Your task to perform on an android device: Show me popular games on the Play Store Image 0: 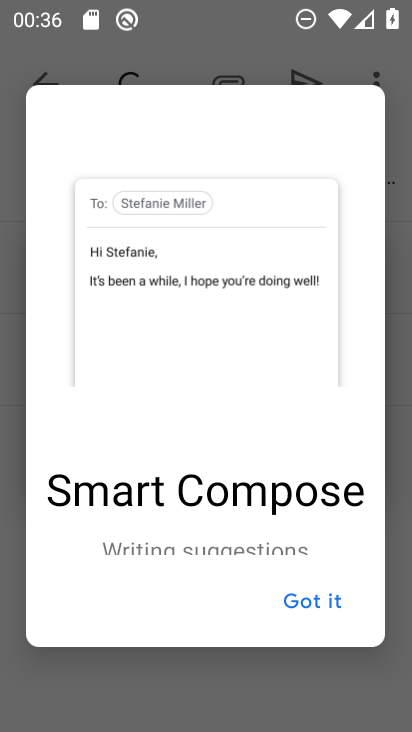
Step 0: click (320, 590)
Your task to perform on an android device: Show me popular games on the Play Store Image 1: 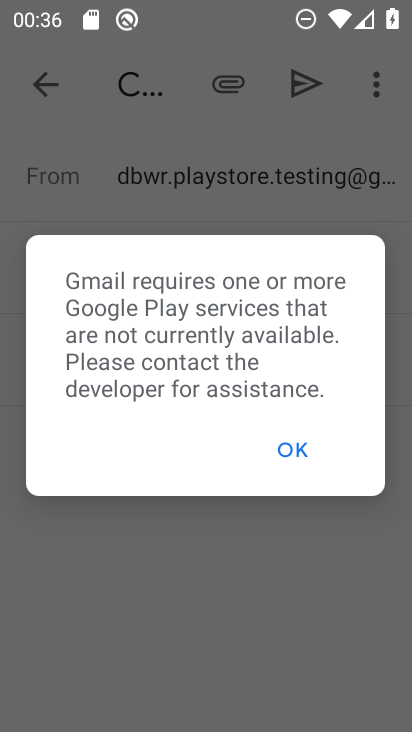
Step 1: click (299, 422)
Your task to perform on an android device: Show me popular games on the Play Store Image 2: 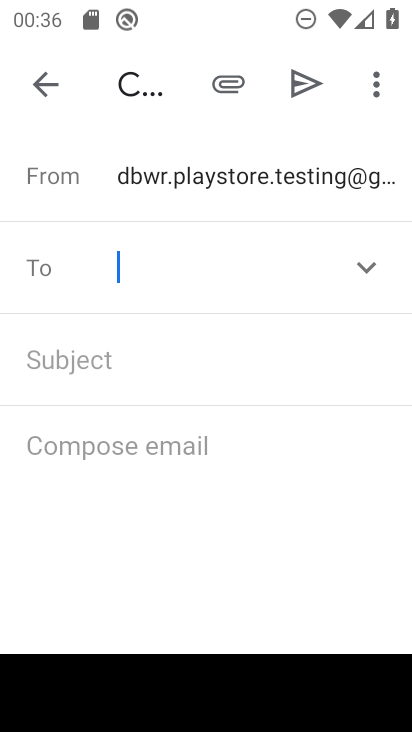
Step 2: press home button
Your task to perform on an android device: Show me popular games on the Play Store Image 3: 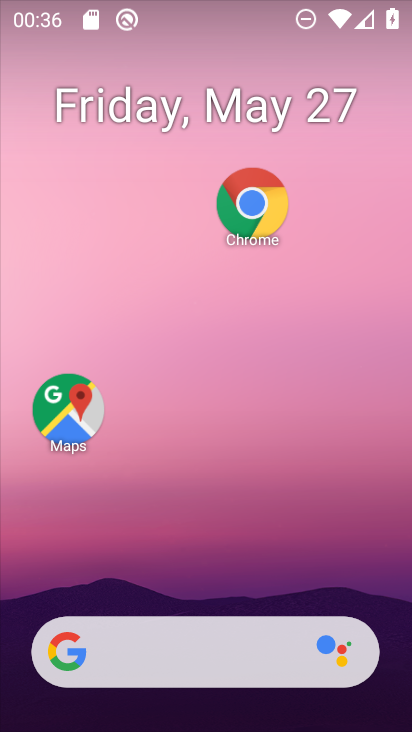
Step 3: drag from (277, 508) to (207, 82)
Your task to perform on an android device: Show me popular games on the Play Store Image 4: 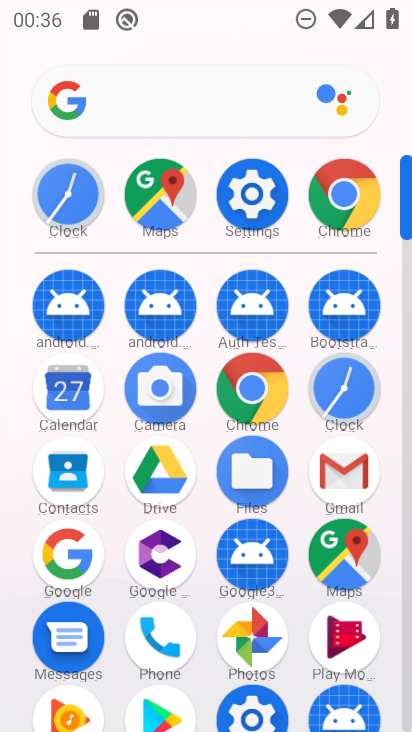
Step 4: click (149, 699)
Your task to perform on an android device: Show me popular games on the Play Store Image 5: 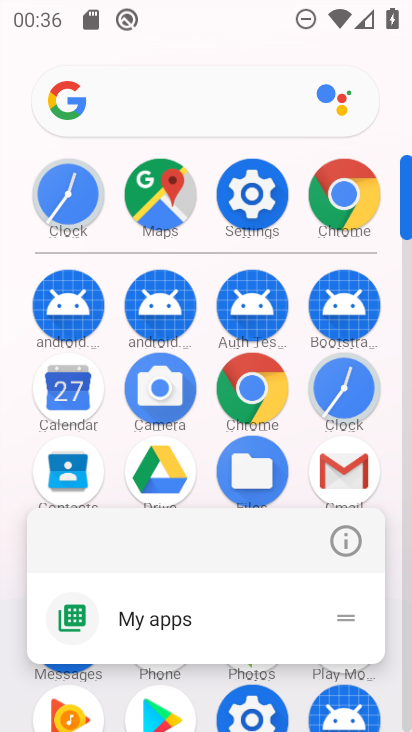
Step 5: click (344, 532)
Your task to perform on an android device: Show me popular games on the Play Store Image 6: 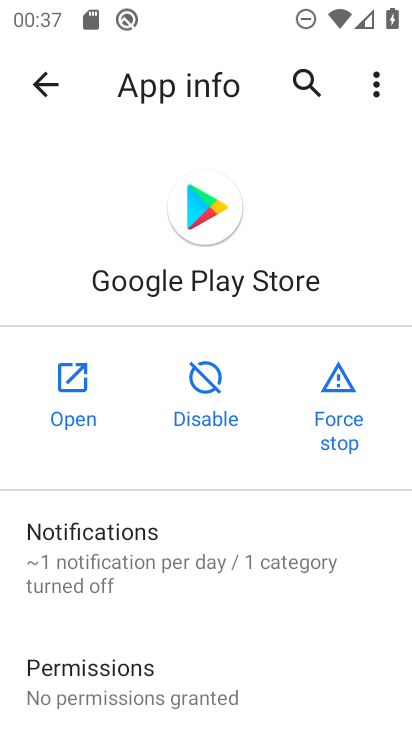
Step 6: click (64, 395)
Your task to perform on an android device: Show me popular games on the Play Store Image 7: 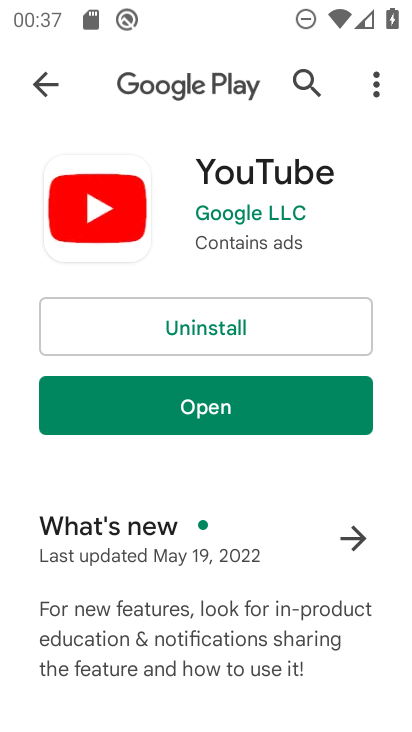
Step 7: press back button
Your task to perform on an android device: Show me popular games on the Play Store Image 8: 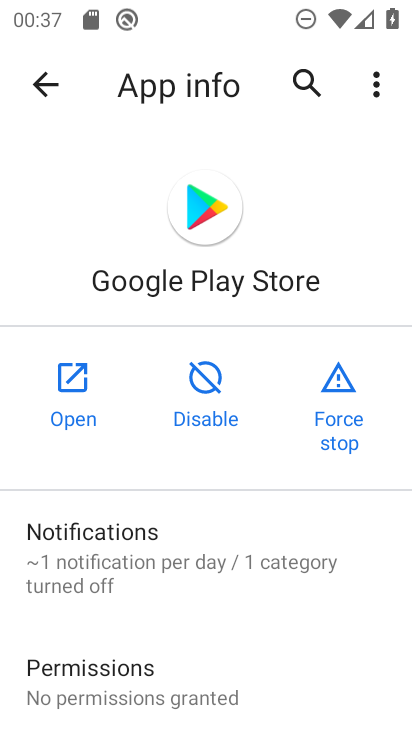
Step 8: press back button
Your task to perform on an android device: Show me popular games on the Play Store Image 9: 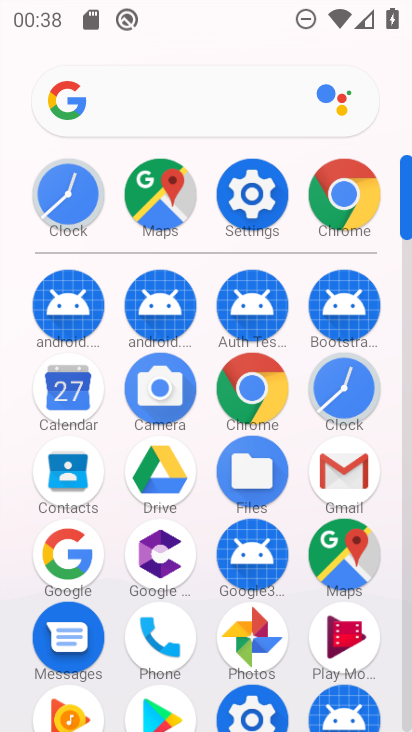
Step 9: click (161, 697)
Your task to perform on an android device: Show me popular games on the Play Store Image 10: 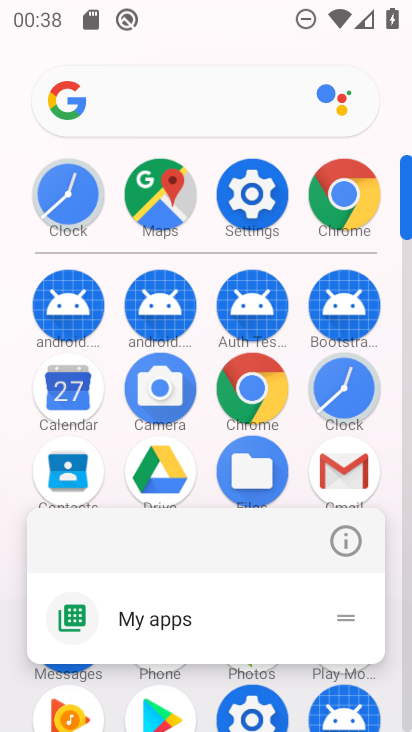
Step 10: click (333, 533)
Your task to perform on an android device: Show me popular games on the Play Store Image 11: 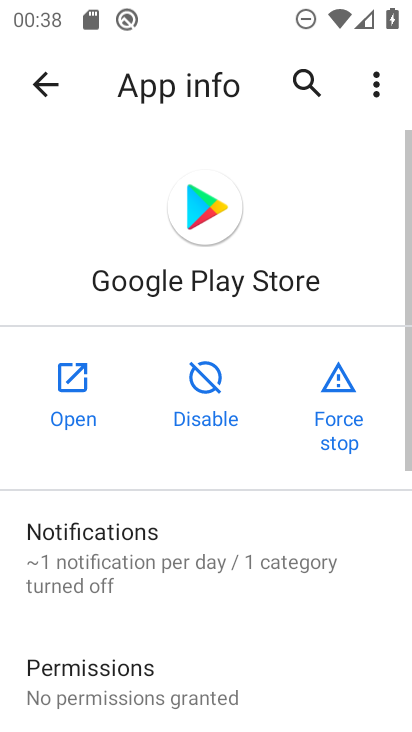
Step 11: click (98, 413)
Your task to perform on an android device: Show me popular games on the Play Store Image 12: 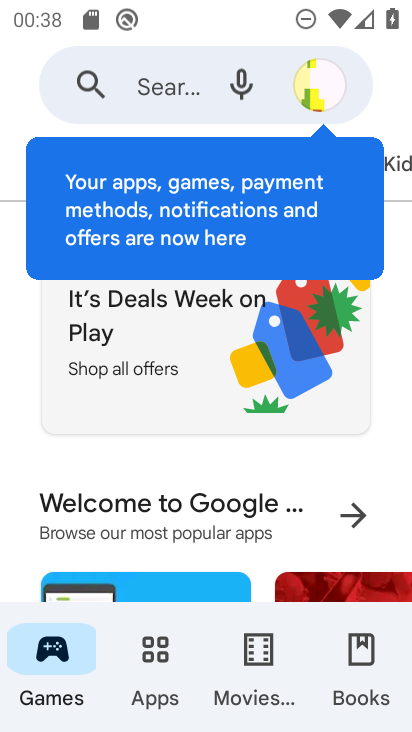
Step 12: drag from (236, 557) to (186, 173)
Your task to perform on an android device: Show me popular games on the Play Store Image 13: 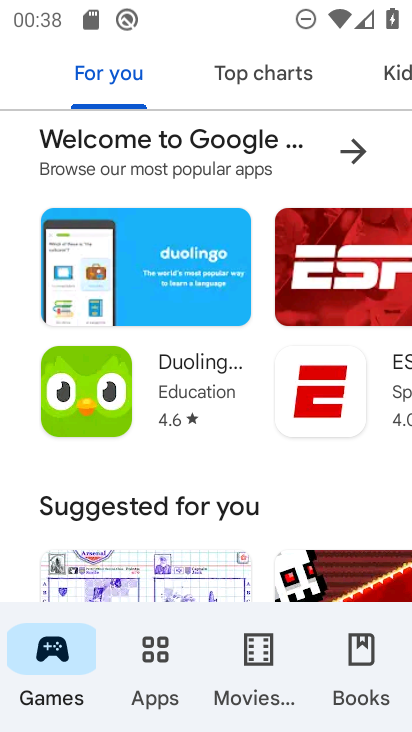
Step 13: drag from (226, 502) to (213, 28)
Your task to perform on an android device: Show me popular games on the Play Store Image 14: 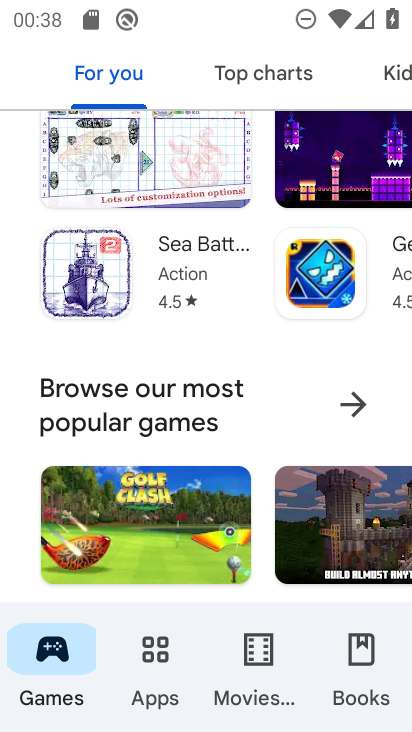
Step 14: click (341, 398)
Your task to perform on an android device: Show me popular games on the Play Store Image 15: 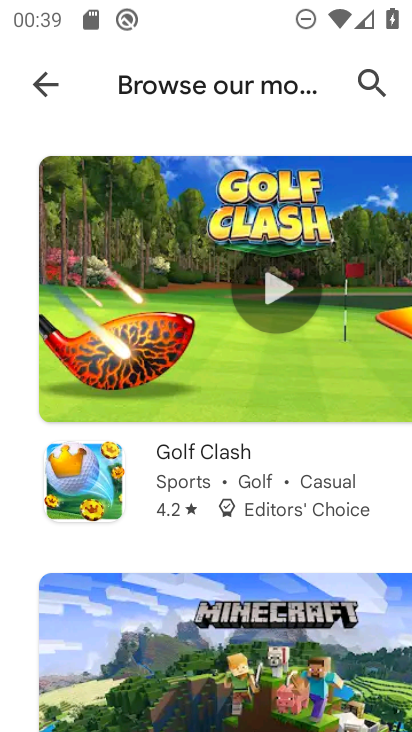
Step 15: task complete